Your task to perform on an android device: Open Google Image 0: 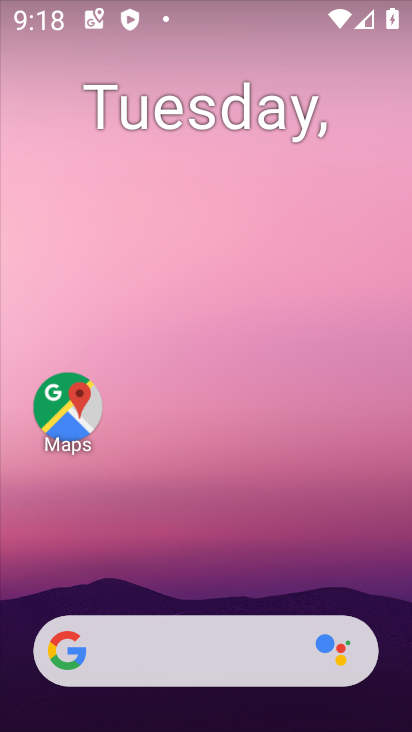
Step 0: click (123, 635)
Your task to perform on an android device: Open Google Image 1: 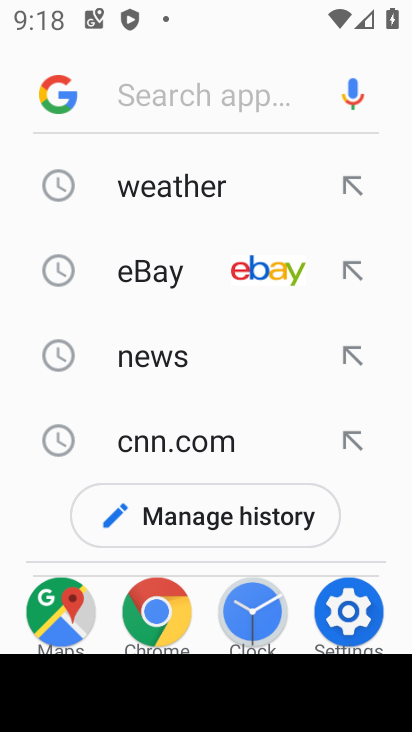
Step 1: task complete